Your task to perform on an android device: turn off airplane mode Image 0: 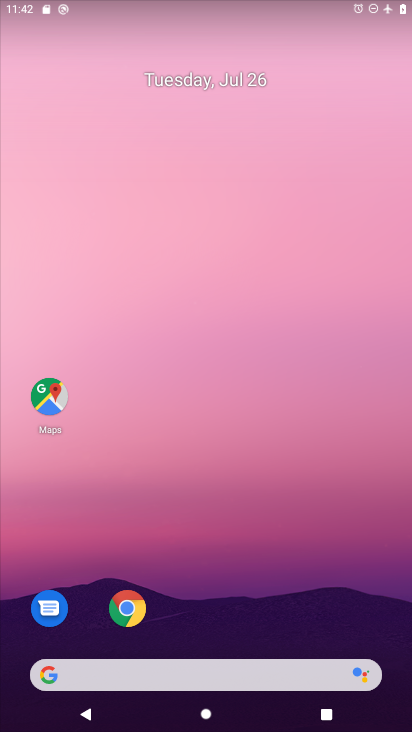
Step 0: drag from (169, 217) to (148, 55)
Your task to perform on an android device: turn off airplane mode Image 1: 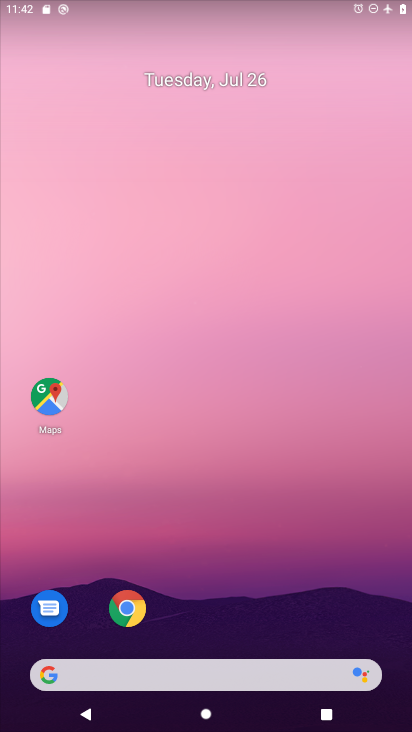
Step 1: drag from (283, 578) to (206, 78)
Your task to perform on an android device: turn off airplane mode Image 2: 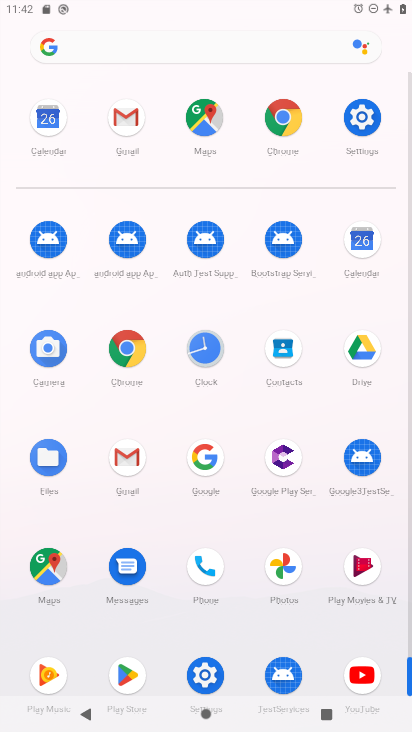
Step 2: click (379, 124)
Your task to perform on an android device: turn off airplane mode Image 3: 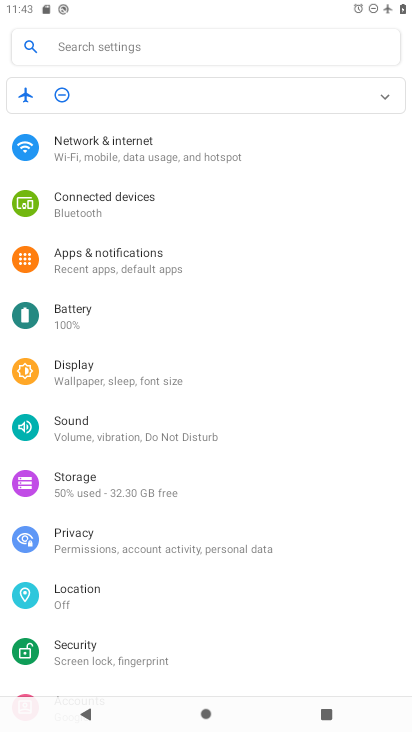
Step 3: click (132, 151)
Your task to perform on an android device: turn off airplane mode Image 4: 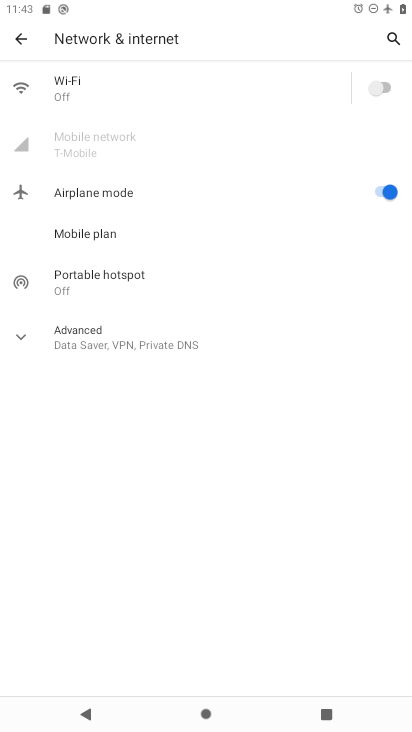
Step 4: click (381, 186)
Your task to perform on an android device: turn off airplane mode Image 5: 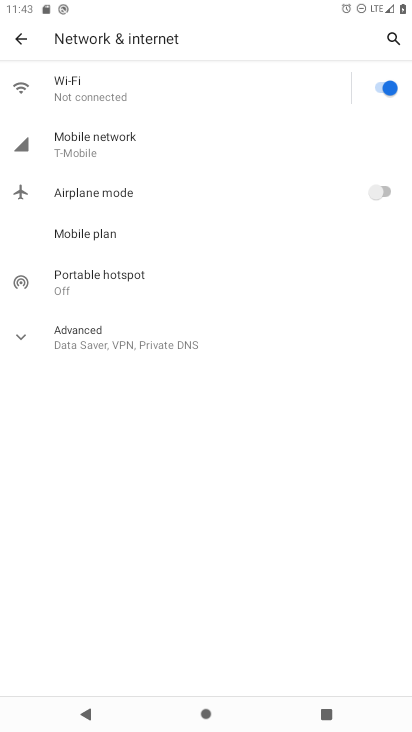
Step 5: task complete